Your task to perform on an android device: find which apps use the phone's location Image 0: 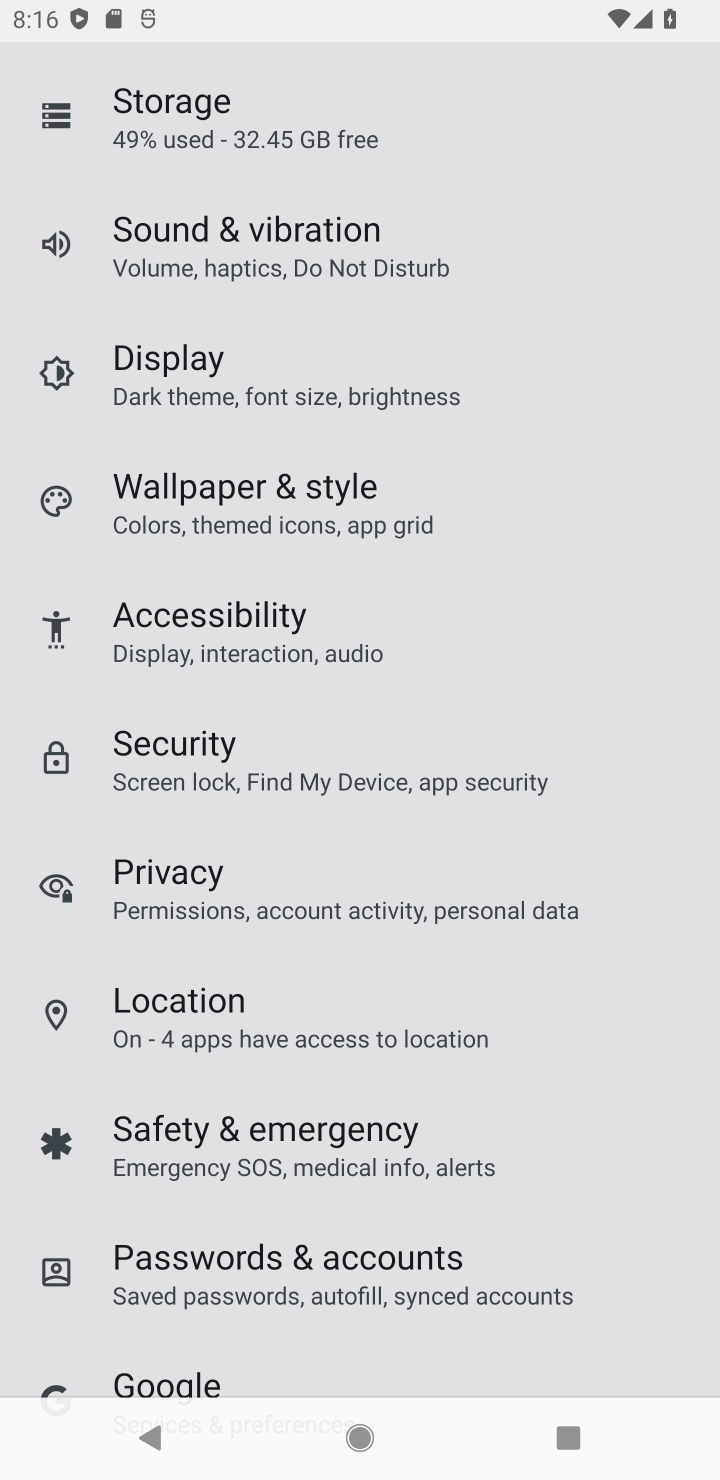
Step 0: click (320, 988)
Your task to perform on an android device: find which apps use the phone's location Image 1: 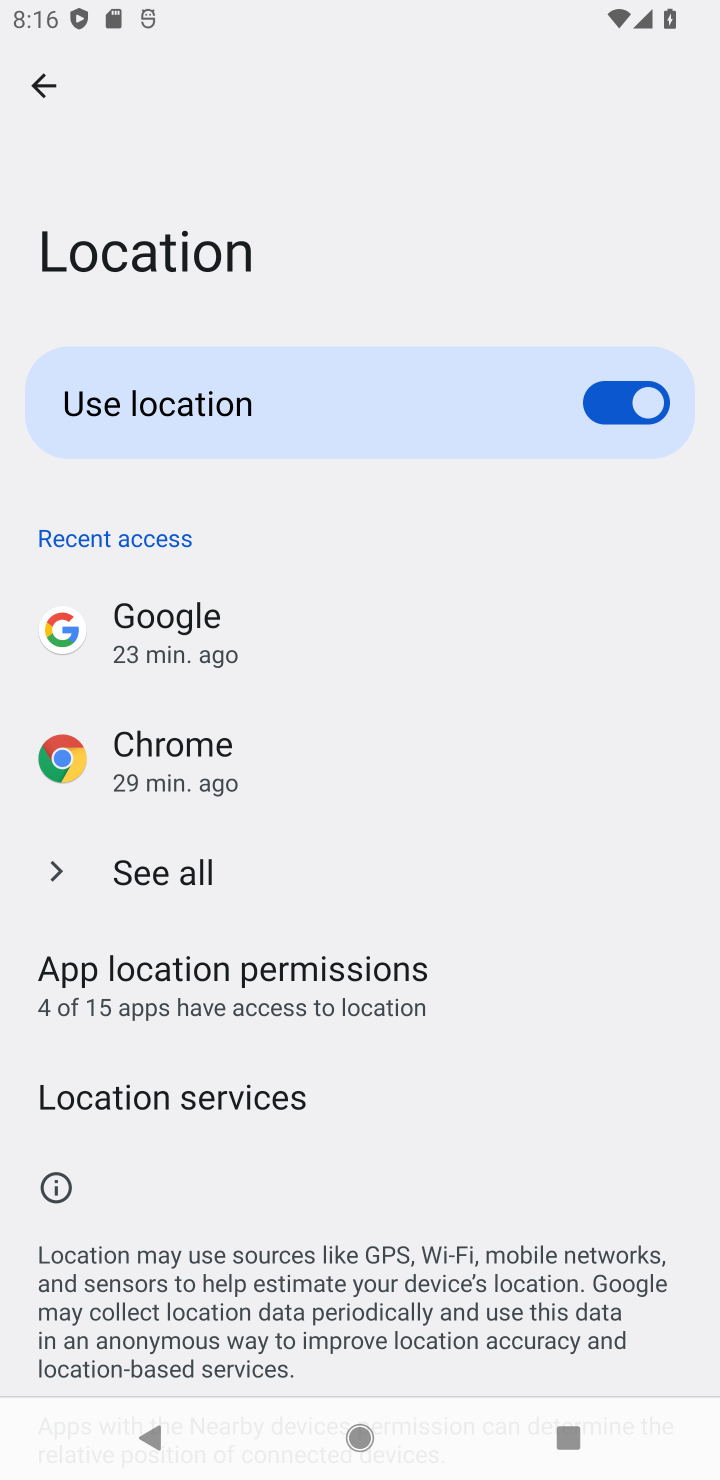
Step 1: task complete